Your task to perform on an android device: uninstall "Cash App" Image 0: 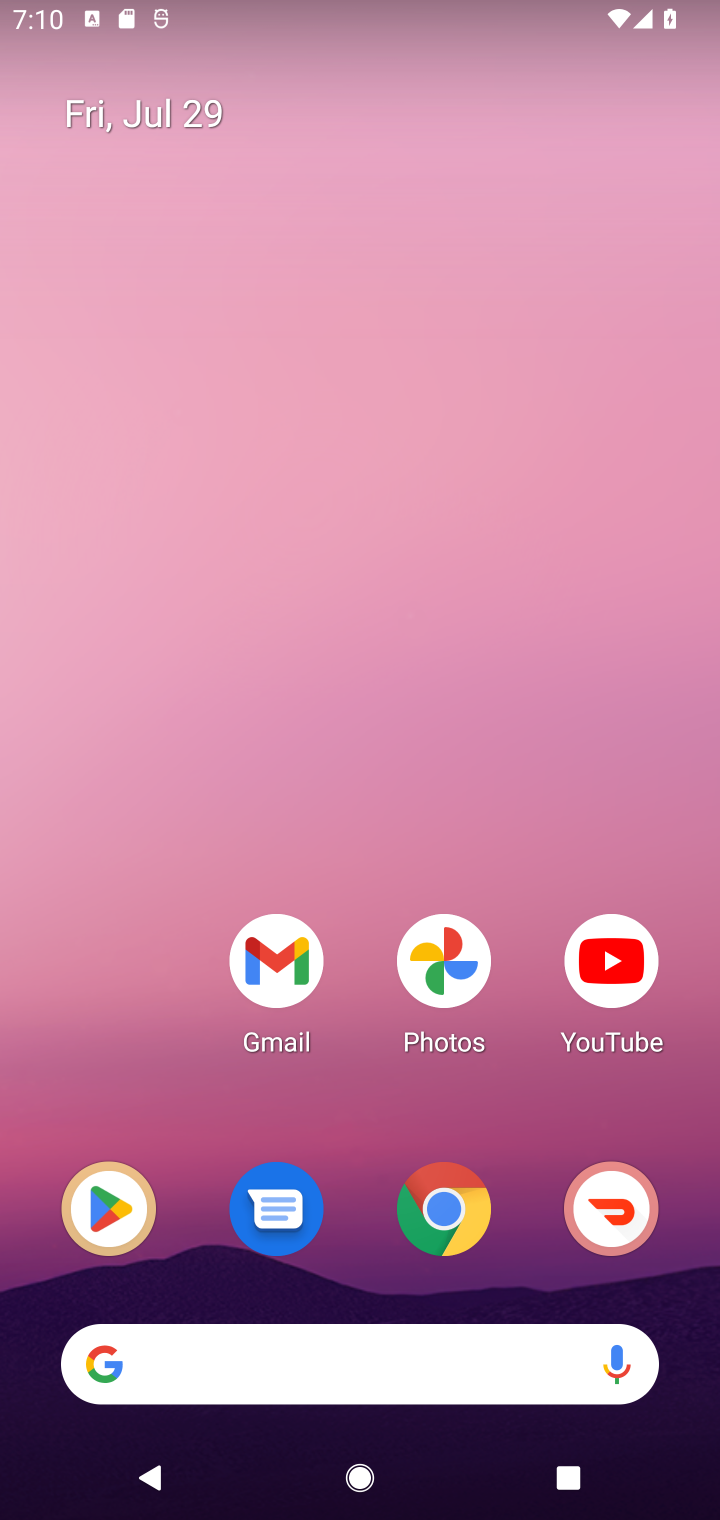
Step 0: drag from (378, 1204) to (366, 65)
Your task to perform on an android device: uninstall "Cash App" Image 1: 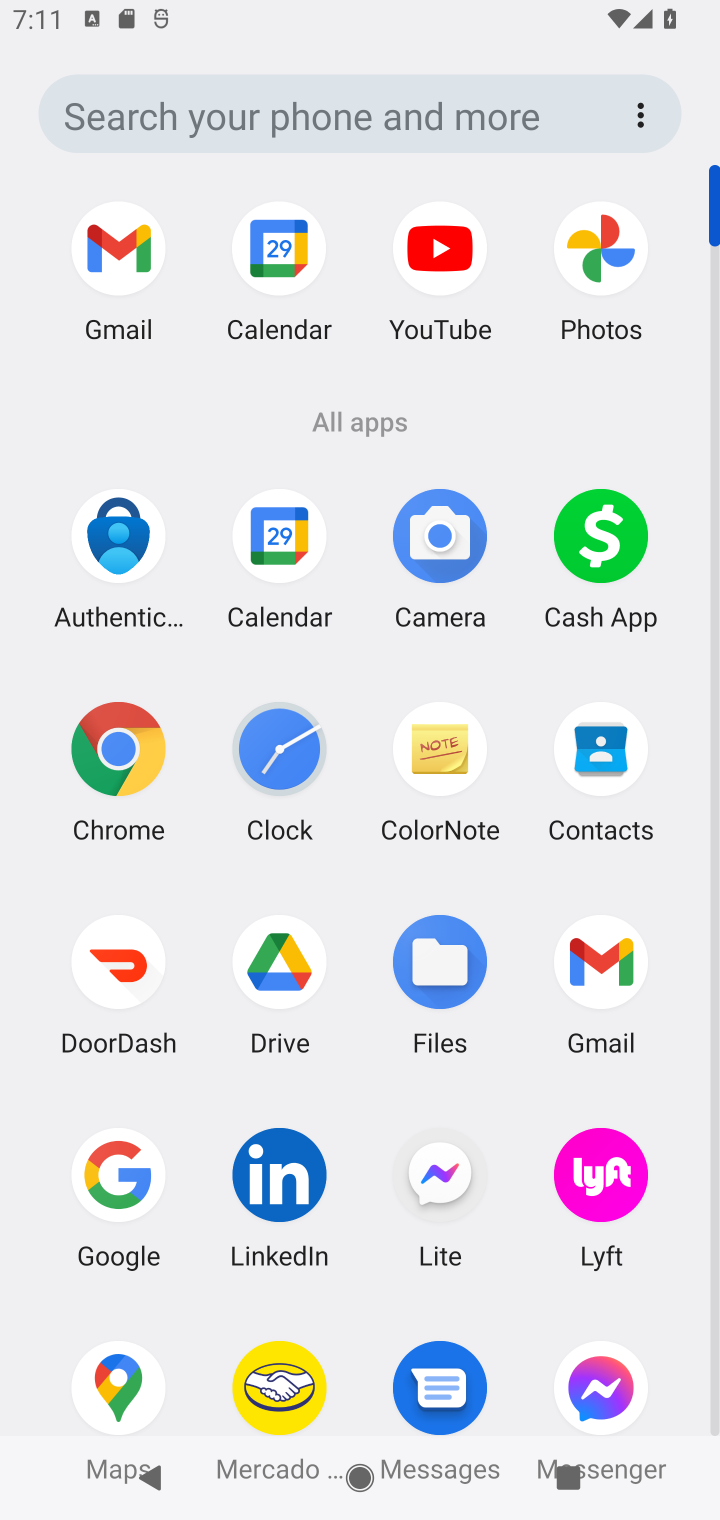
Step 1: click (614, 532)
Your task to perform on an android device: uninstall "Cash App" Image 2: 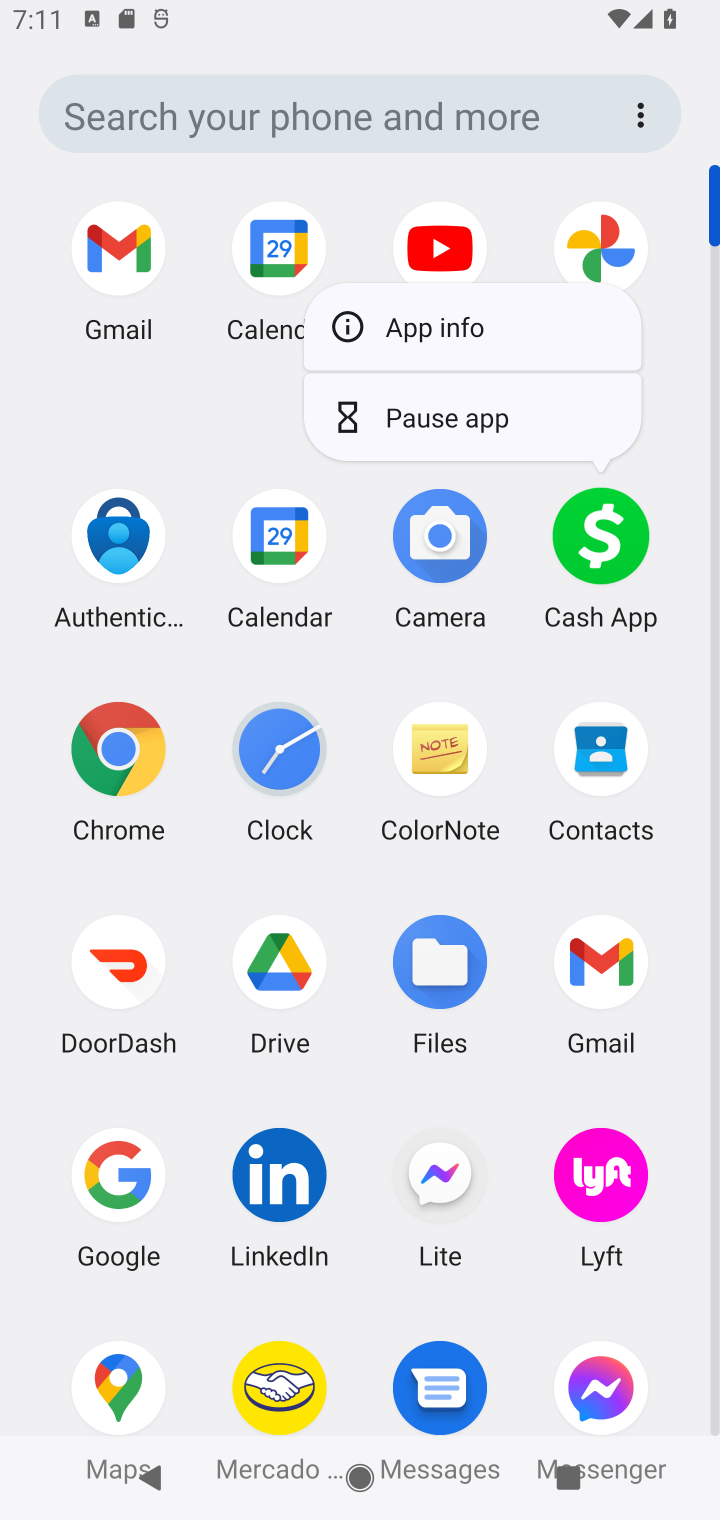
Step 2: click (426, 334)
Your task to perform on an android device: uninstall "Cash App" Image 3: 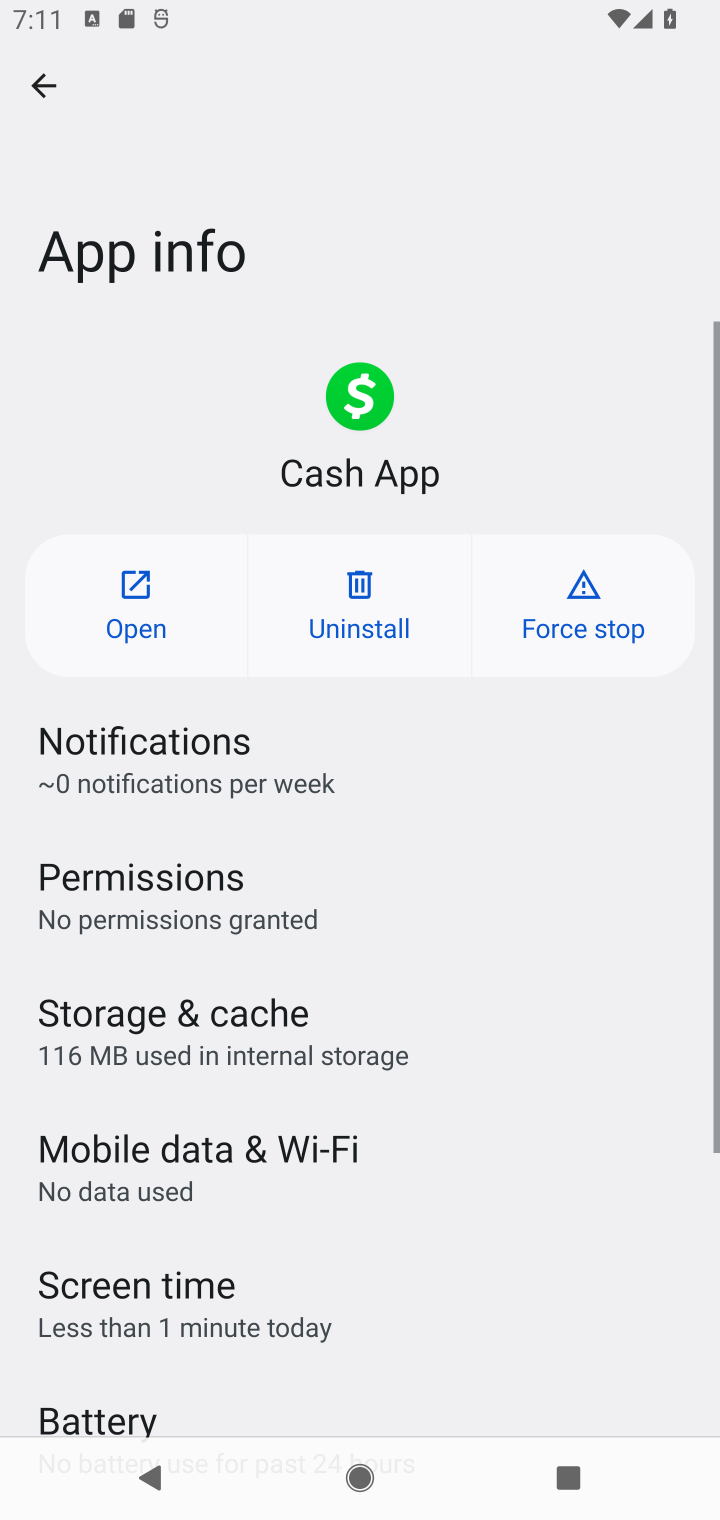
Step 3: click (325, 616)
Your task to perform on an android device: uninstall "Cash App" Image 4: 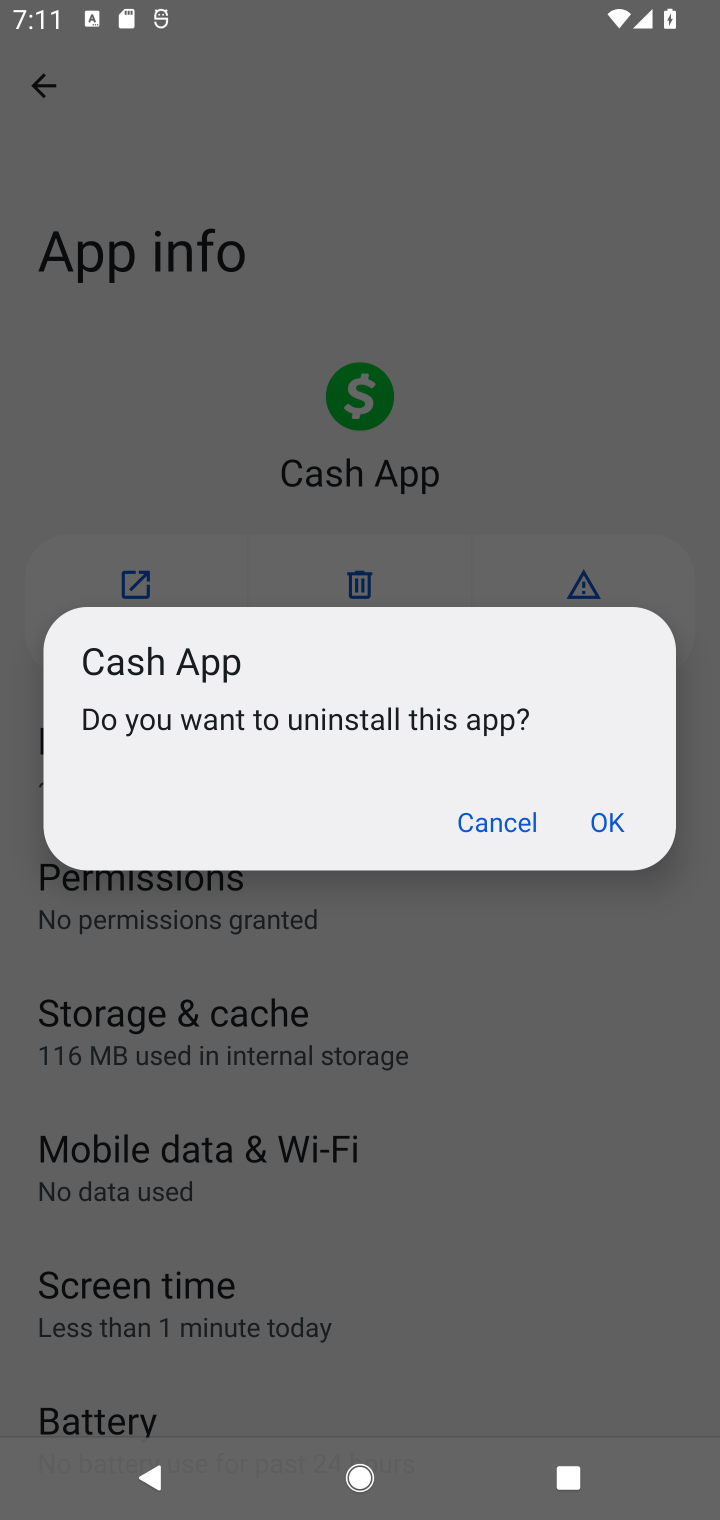
Step 4: click (601, 838)
Your task to perform on an android device: uninstall "Cash App" Image 5: 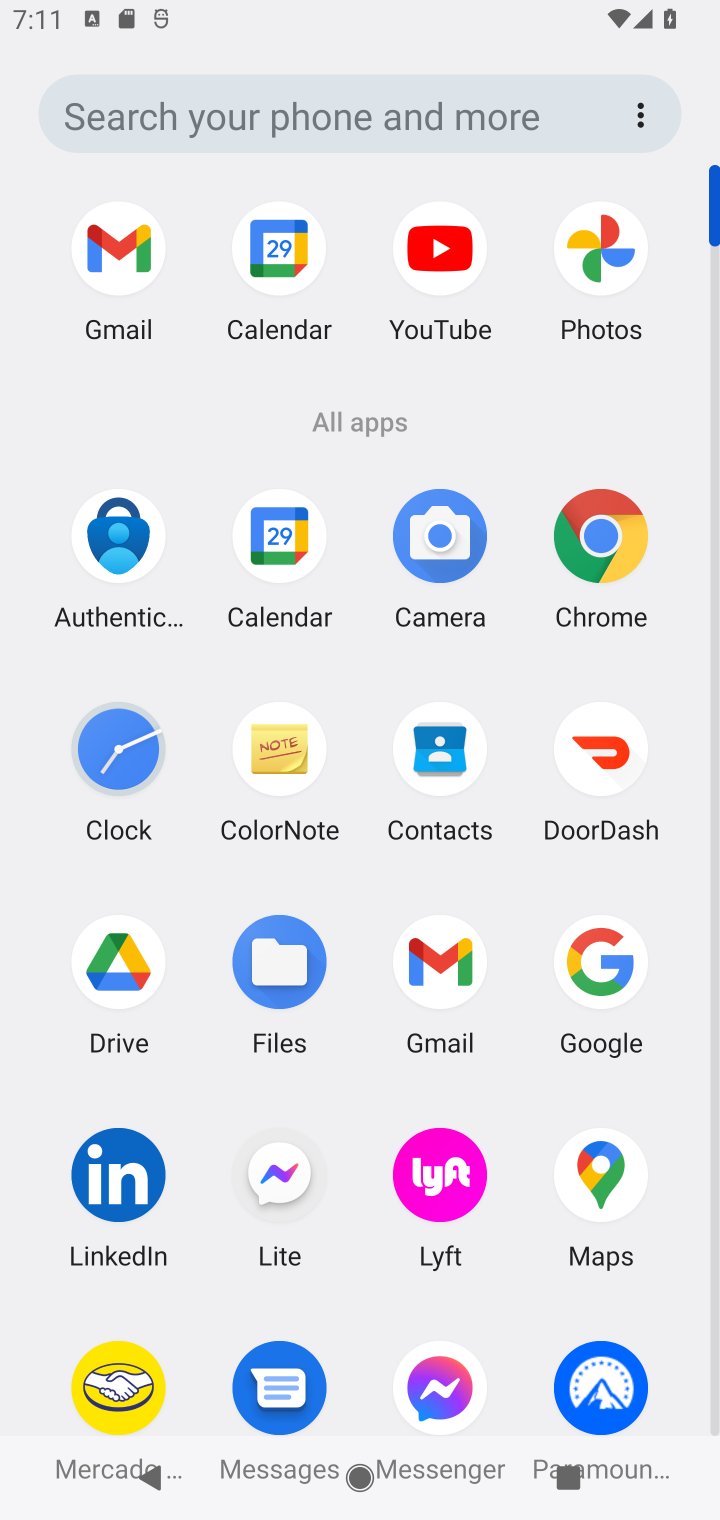
Step 5: task complete